Your task to perform on an android device: change notifications settings Image 0: 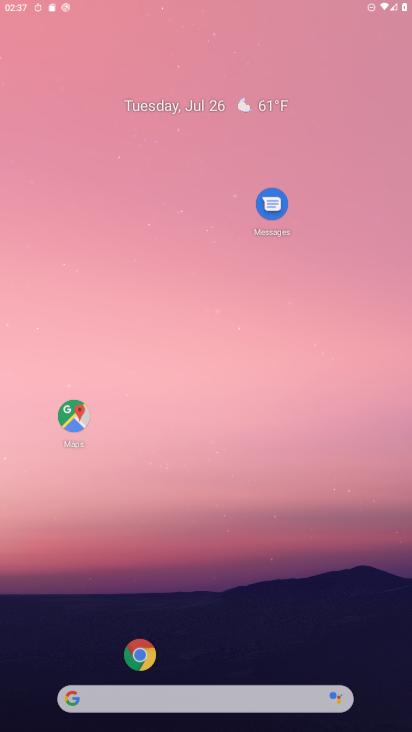
Step 0: click (143, 694)
Your task to perform on an android device: change notifications settings Image 1: 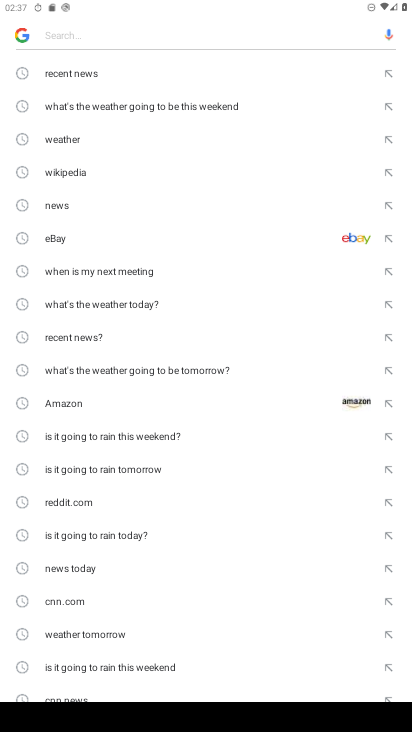
Step 1: press home button
Your task to perform on an android device: change notifications settings Image 2: 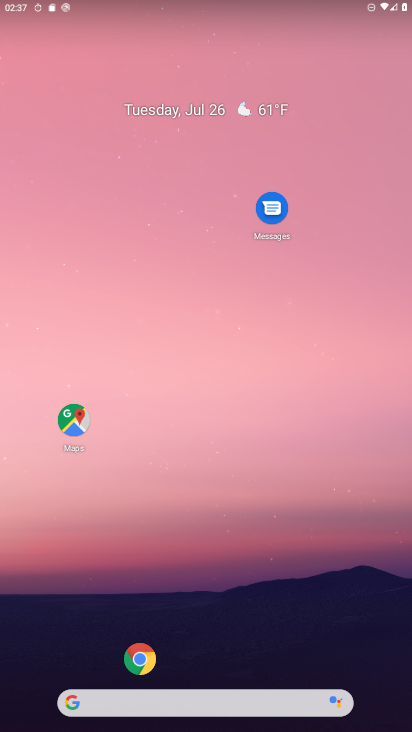
Step 2: drag from (43, 710) to (216, 224)
Your task to perform on an android device: change notifications settings Image 3: 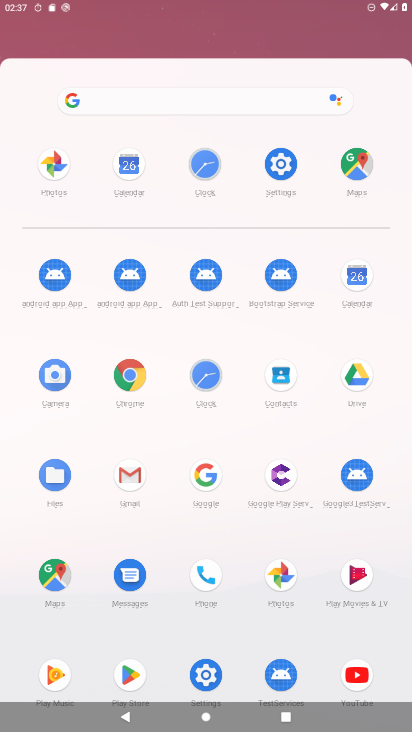
Step 3: drag from (54, 657) to (162, 96)
Your task to perform on an android device: change notifications settings Image 4: 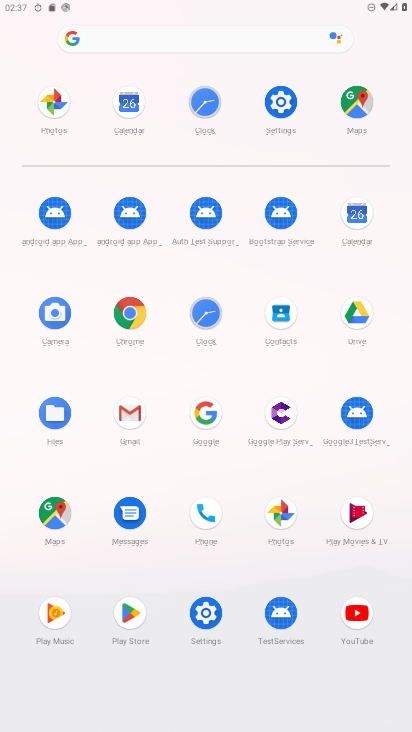
Step 4: click (211, 612)
Your task to perform on an android device: change notifications settings Image 5: 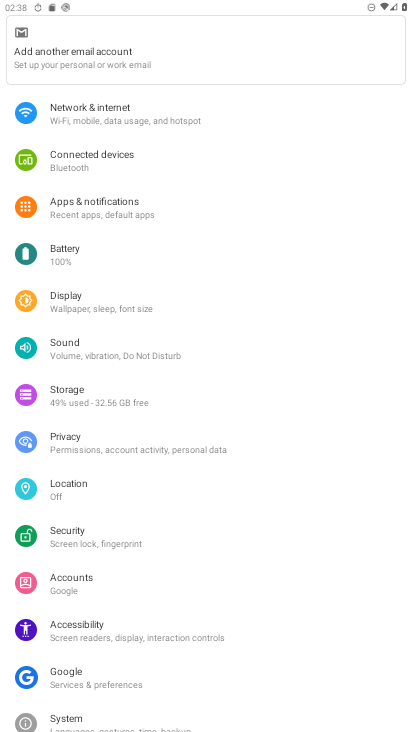
Step 5: click (63, 207)
Your task to perform on an android device: change notifications settings Image 6: 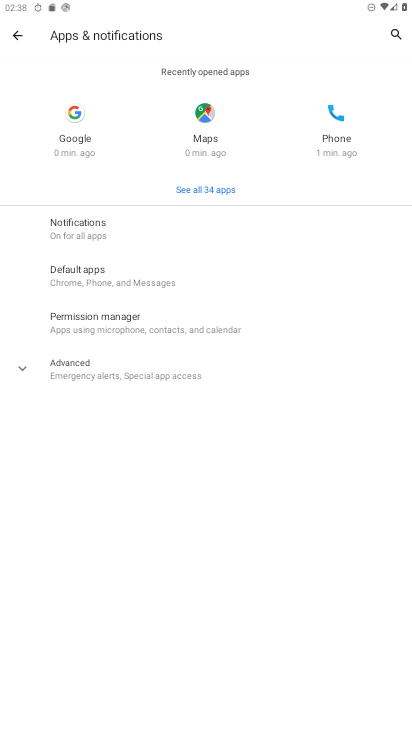
Step 6: task complete